Your task to perform on an android device: Open Google Maps Image 0: 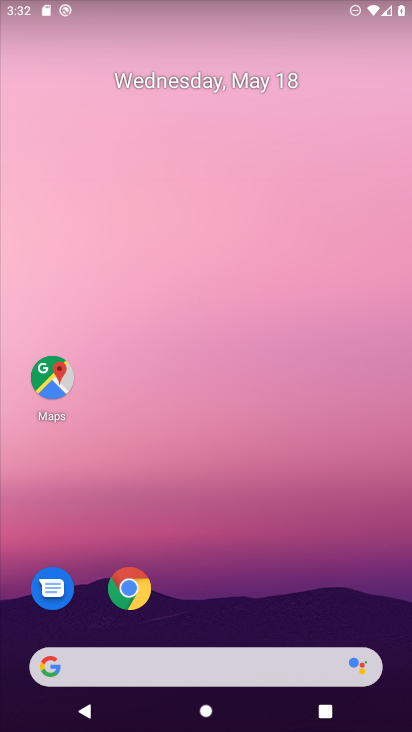
Step 0: click (52, 388)
Your task to perform on an android device: Open Google Maps Image 1: 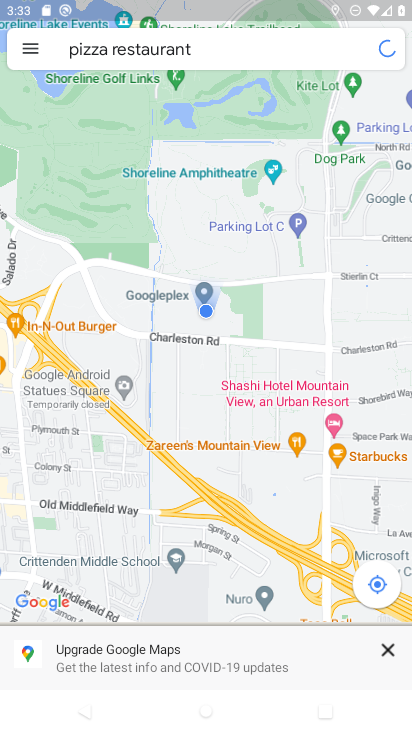
Step 1: task complete